Your task to perform on an android device: install app "Microsoft Excel" Image 0: 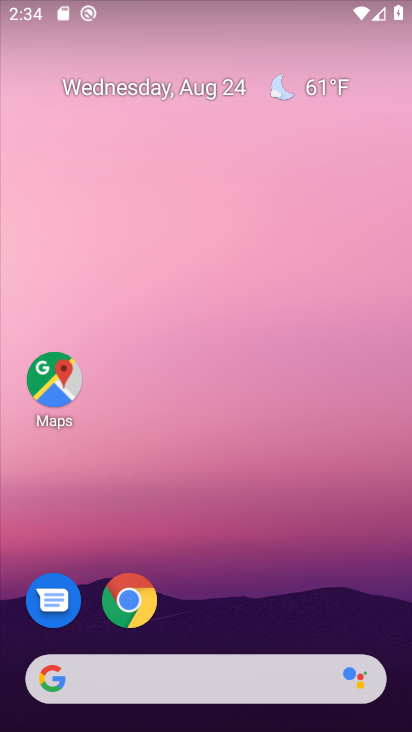
Step 0: drag from (256, 612) to (273, 8)
Your task to perform on an android device: install app "Microsoft Excel" Image 1: 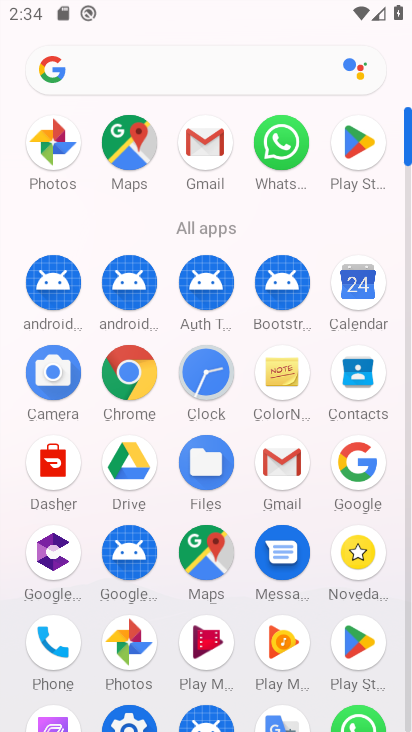
Step 1: click (362, 143)
Your task to perform on an android device: install app "Microsoft Excel" Image 2: 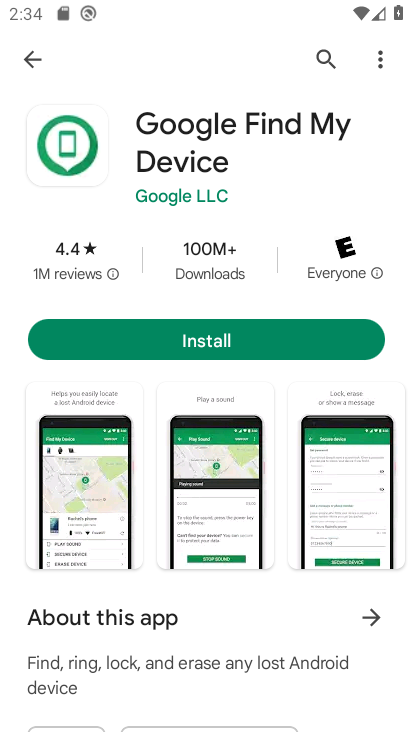
Step 2: click (319, 62)
Your task to perform on an android device: install app "Microsoft Excel" Image 3: 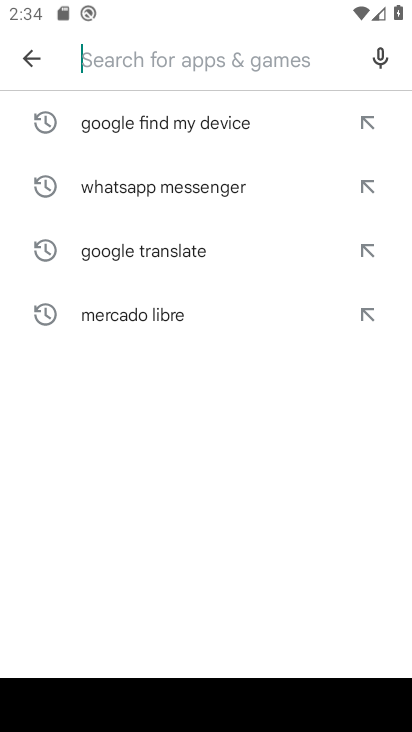
Step 3: click (165, 46)
Your task to perform on an android device: install app "Microsoft Excel" Image 4: 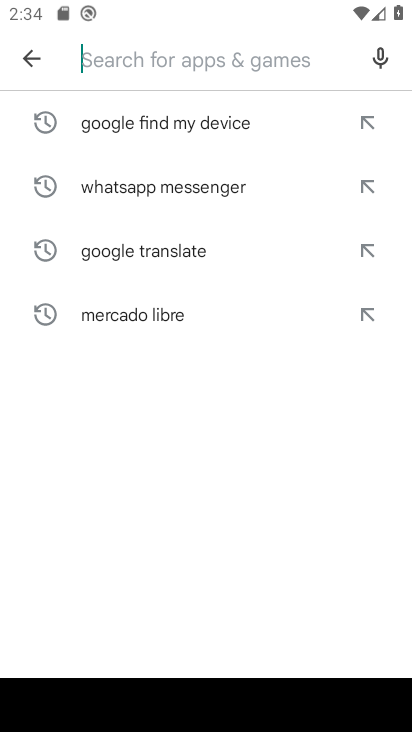
Step 4: type "Microsoft Excel"
Your task to perform on an android device: install app "Microsoft Excel" Image 5: 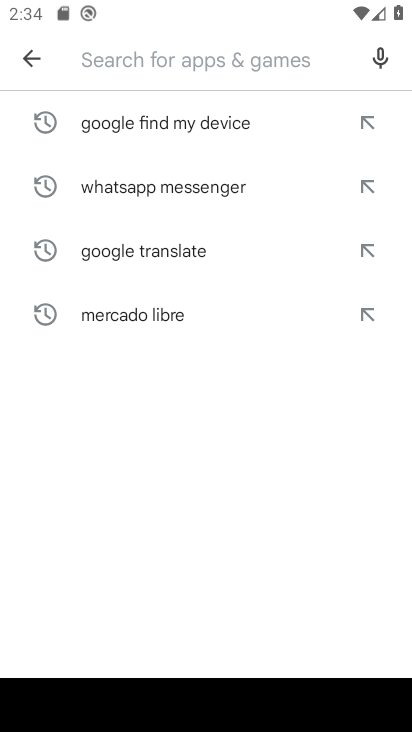
Step 5: click (236, 534)
Your task to perform on an android device: install app "Microsoft Excel" Image 6: 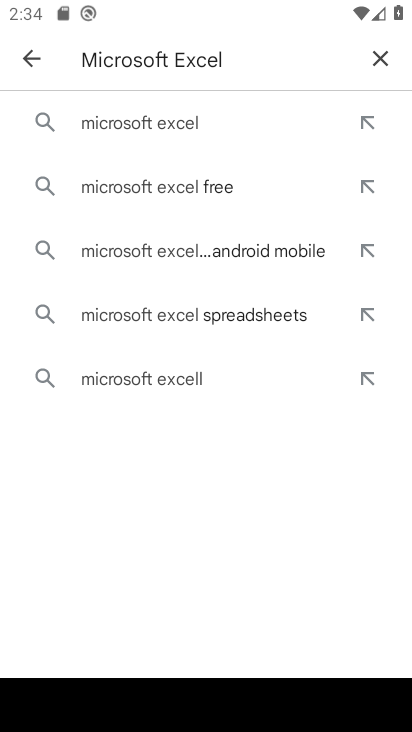
Step 6: click (138, 131)
Your task to perform on an android device: install app "Microsoft Excel" Image 7: 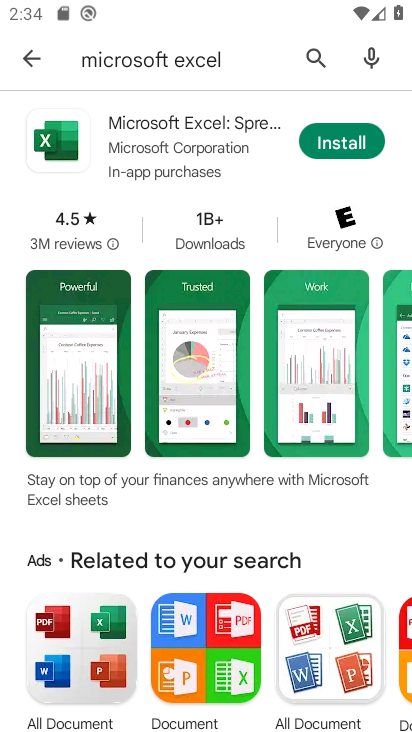
Step 7: click (350, 144)
Your task to perform on an android device: install app "Microsoft Excel" Image 8: 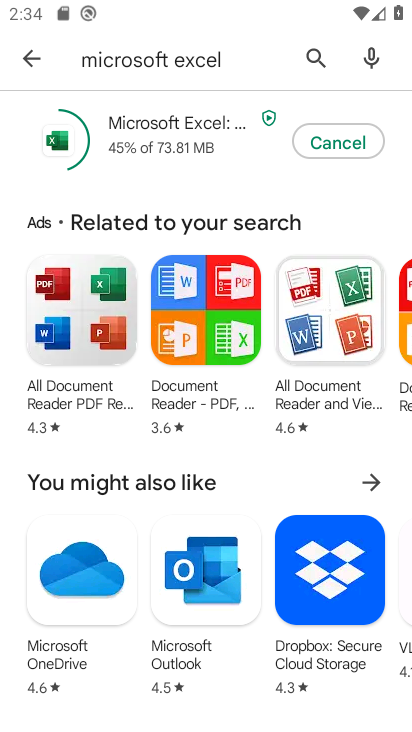
Step 8: task complete